Your task to perform on an android device: change notifications settings Image 0: 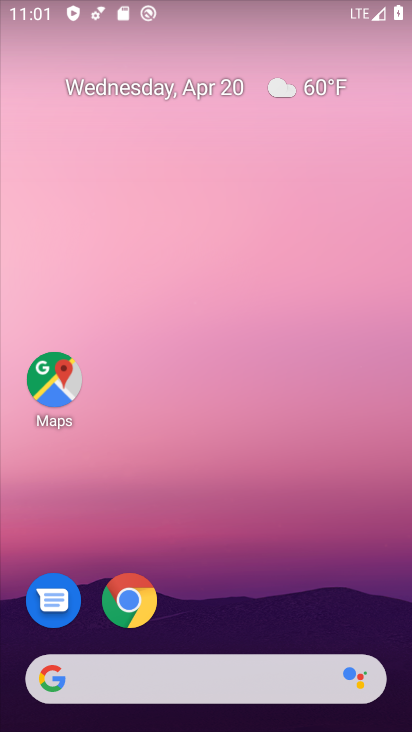
Step 0: drag from (328, 509) to (316, 64)
Your task to perform on an android device: change notifications settings Image 1: 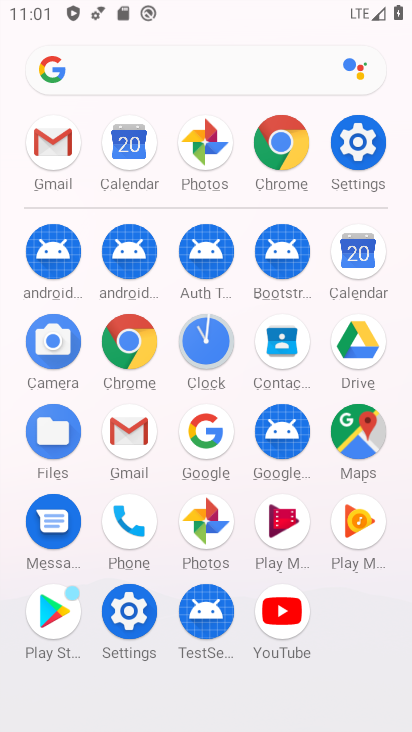
Step 1: click (136, 608)
Your task to perform on an android device: change notifications settings Image 2: 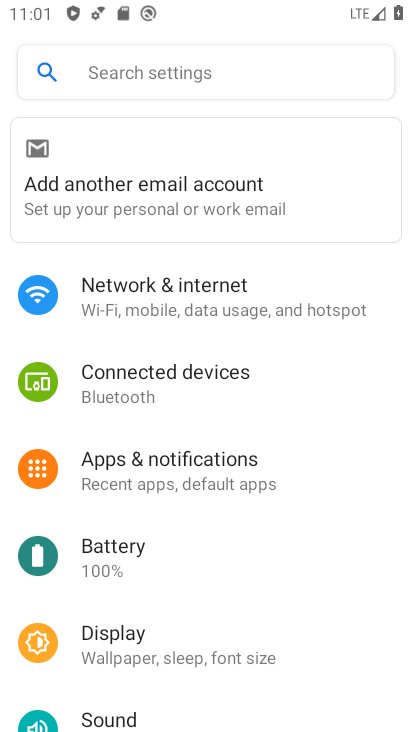
Step 2: drag from (248, 567) to (332, 185)
Your task to perform on an android device: change notifications settings Image 3: 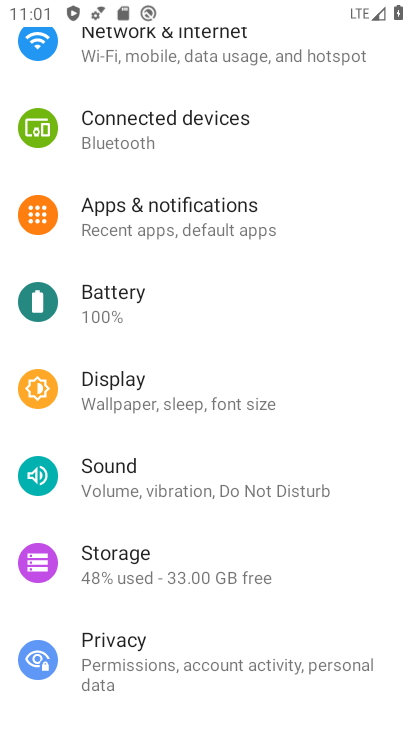
Step 3: drag from (212, 547) to (249, 313)
Your task to perform on an android device: change notifications settings Image 4: 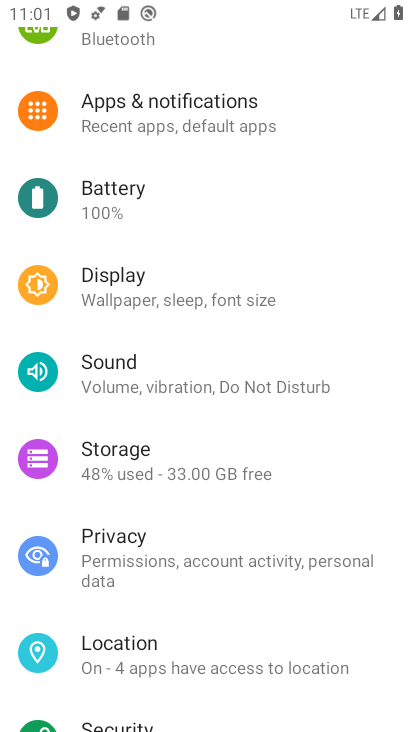
Step 4: drag from (260, 205) to (261, 533)
Your task to perform on an android device: change notifications settings Image 5: 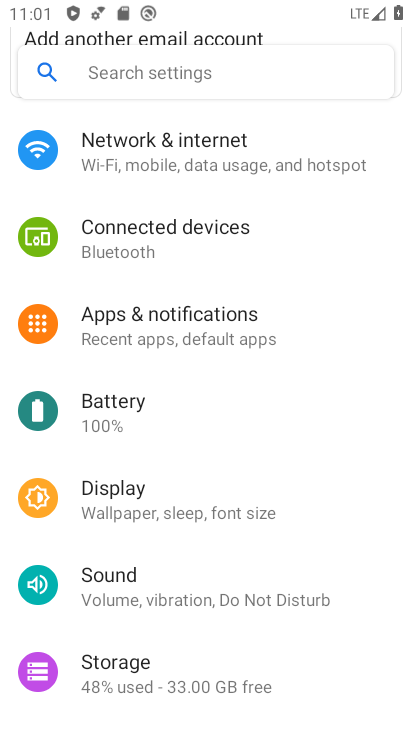
Step 5: click (214, 333)
Your task to perform on an android device: change notifications settings Image 6: 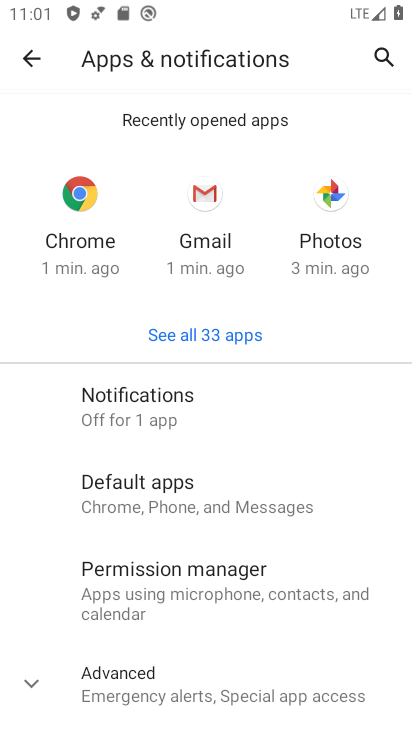
Step 6: click (171, 406)
Your task to perform on an android device: change notifications settings Image 7: 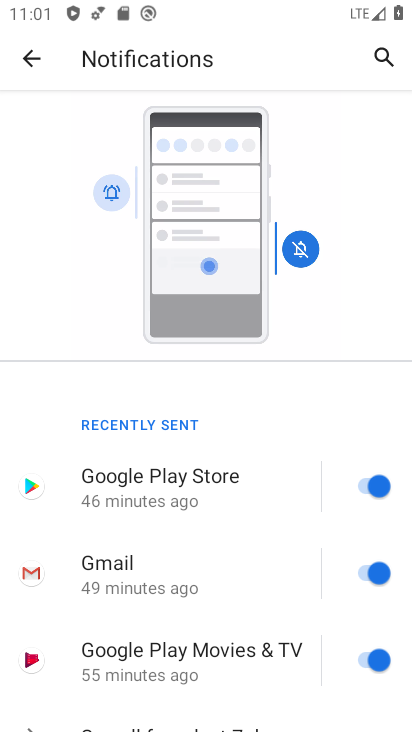
Step 7: task complete